Your task to perform on an android device: check data usage Image 0: 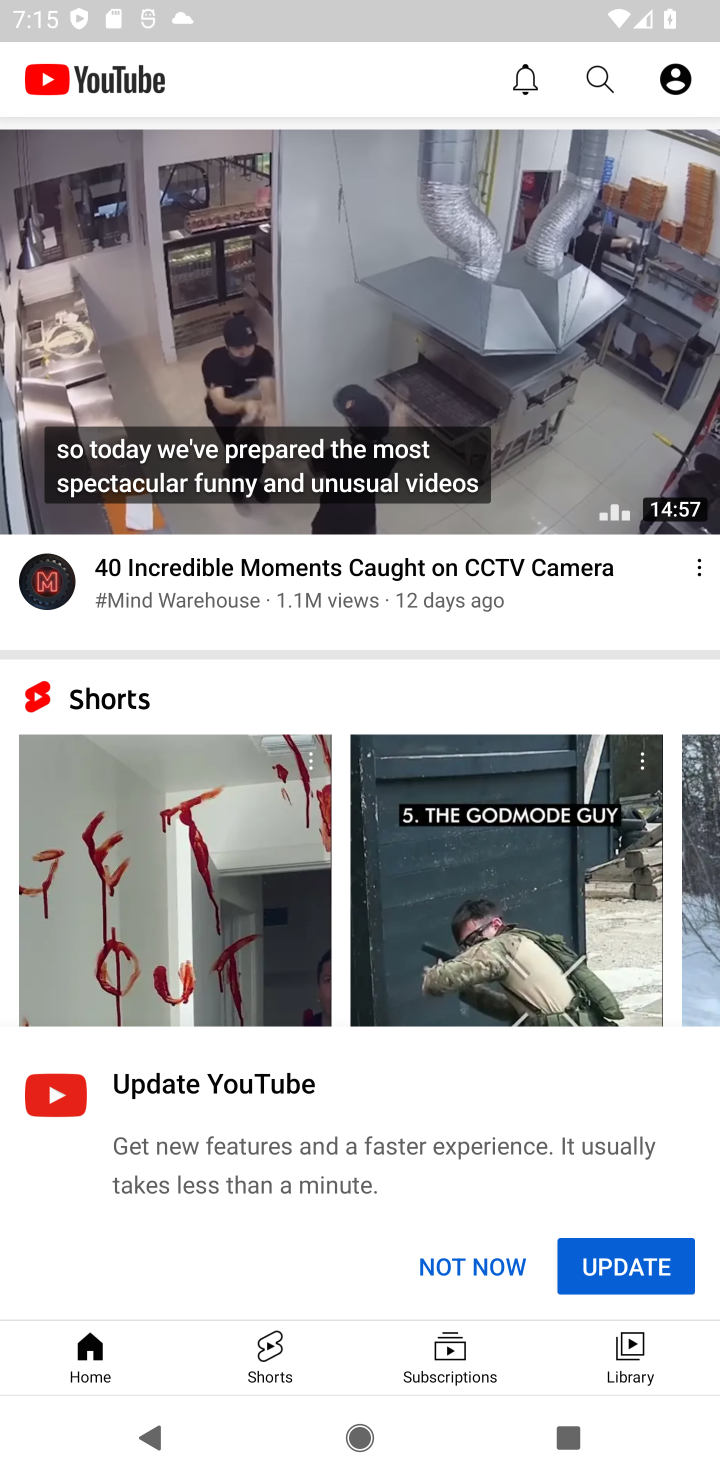
Step 0: press home button
Your task to perform on an android device: check data usage Image 1: 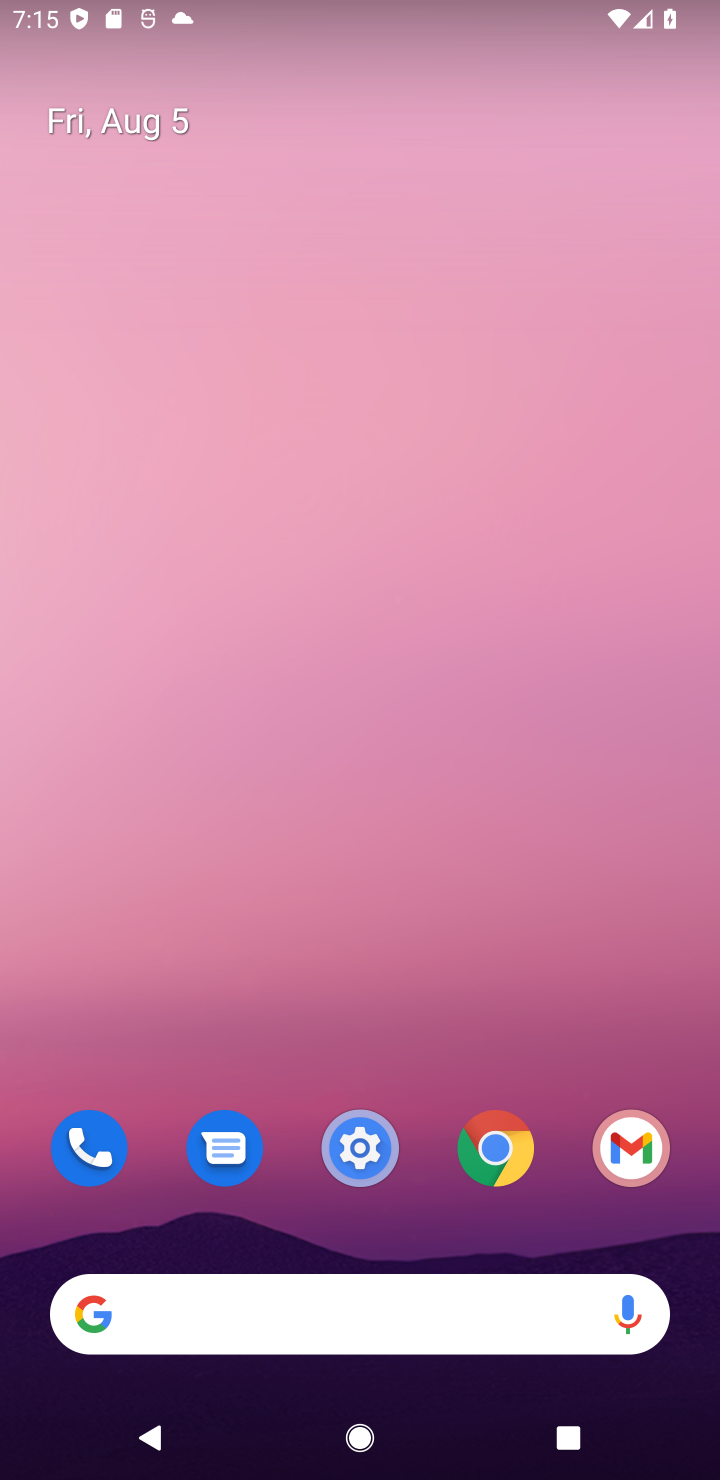
Step 1: click (385, 1170)
Your task to perform on an android device: check data usage Image 2: 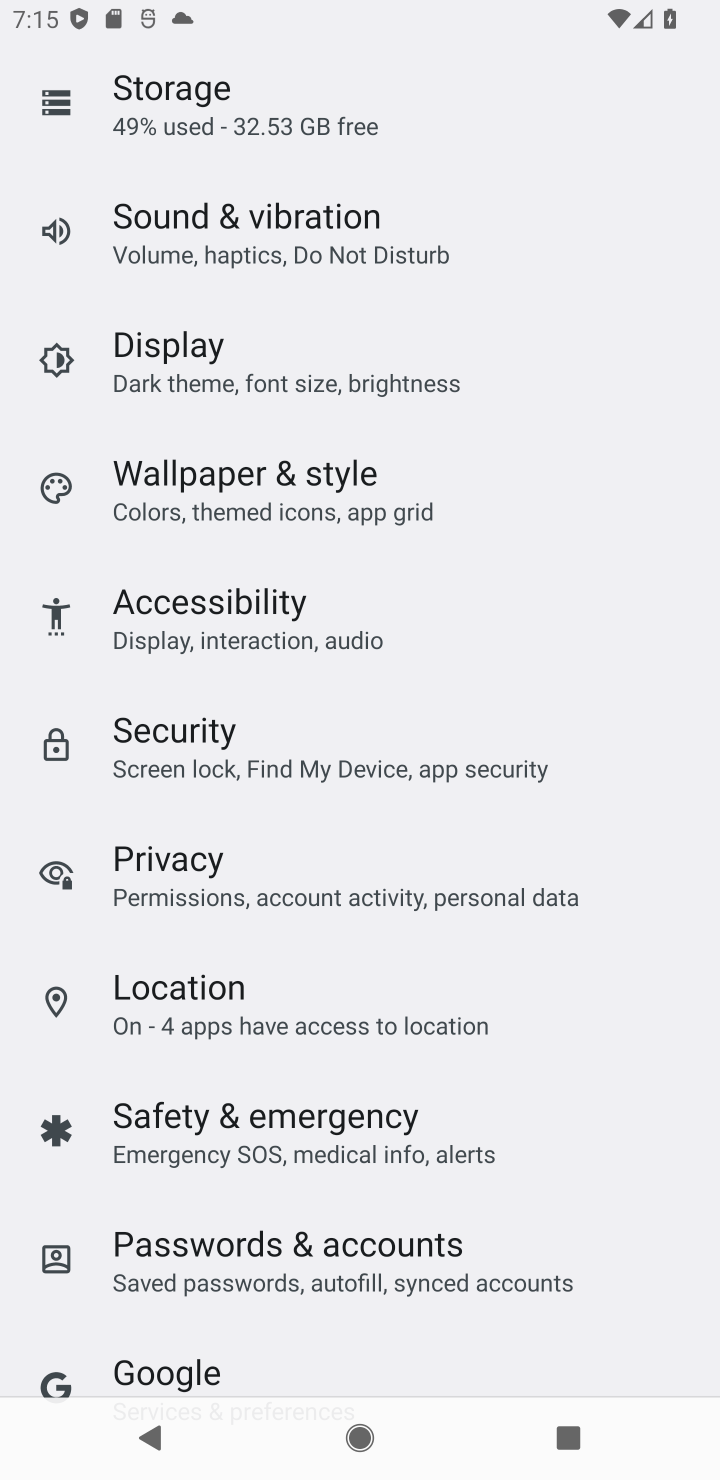
Step 2: drag from (289, 381) to (344, 1060)
Your task to perform on an android device: check data usage Image 3: 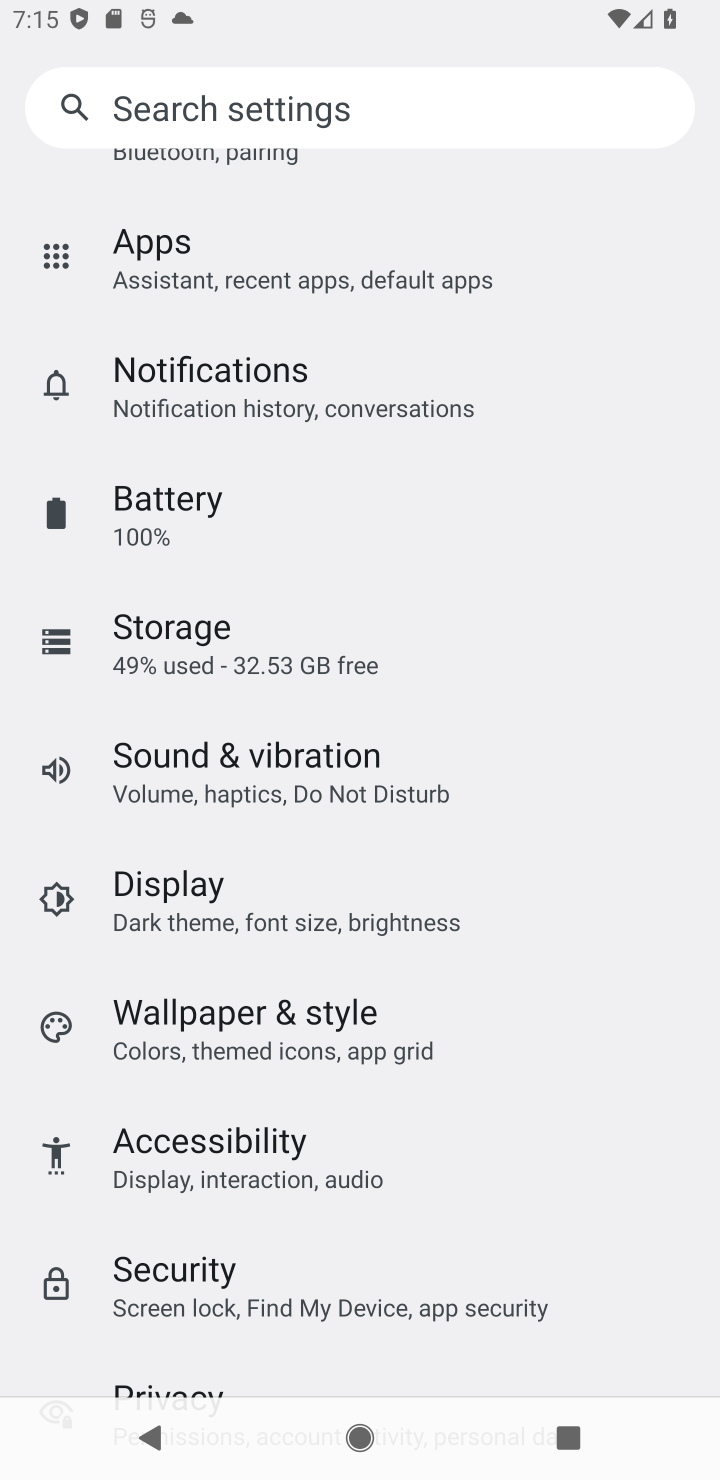
Step 3: drag from (326, 267) to (380, 1334)
Your task to perform on an android device: check data usage Image 4: 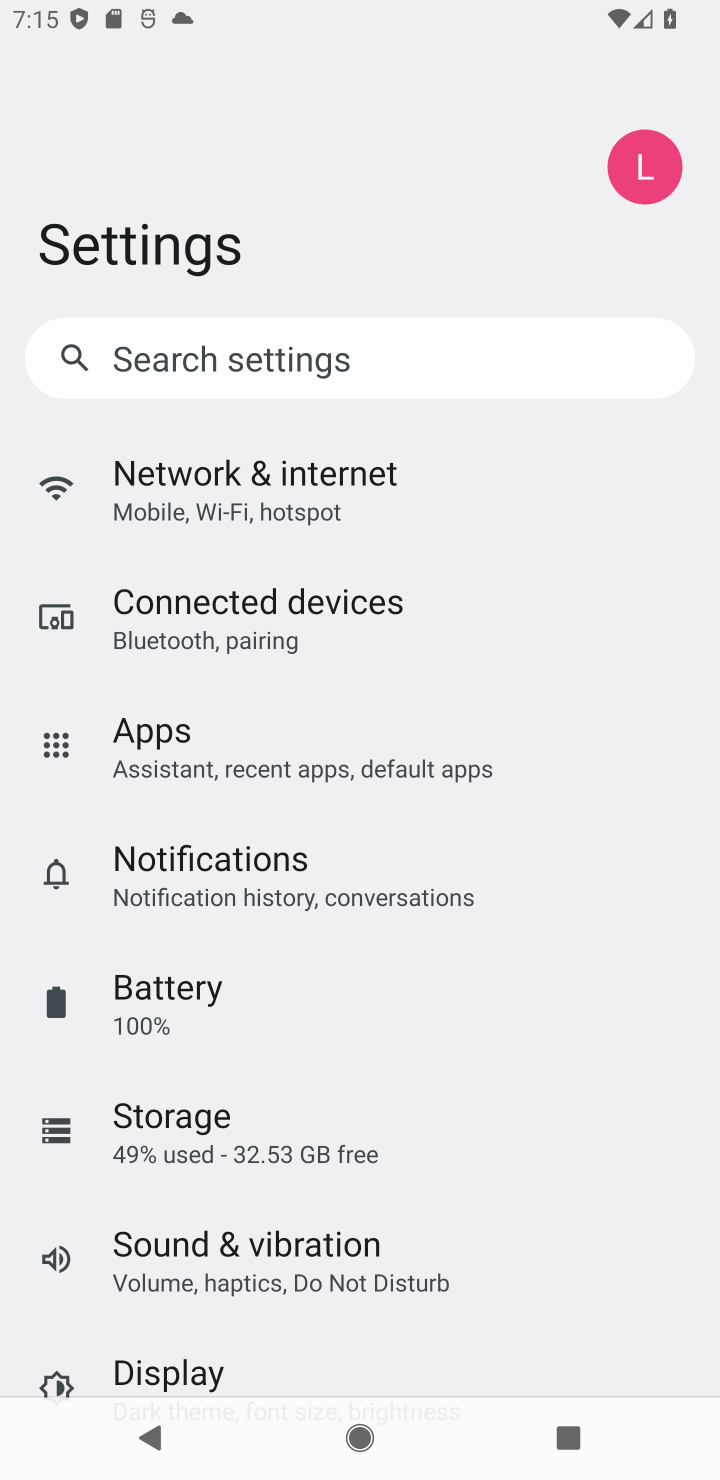
Step 4: click (395, 498)
Your task to perform on an android device: check data usage Image 5: 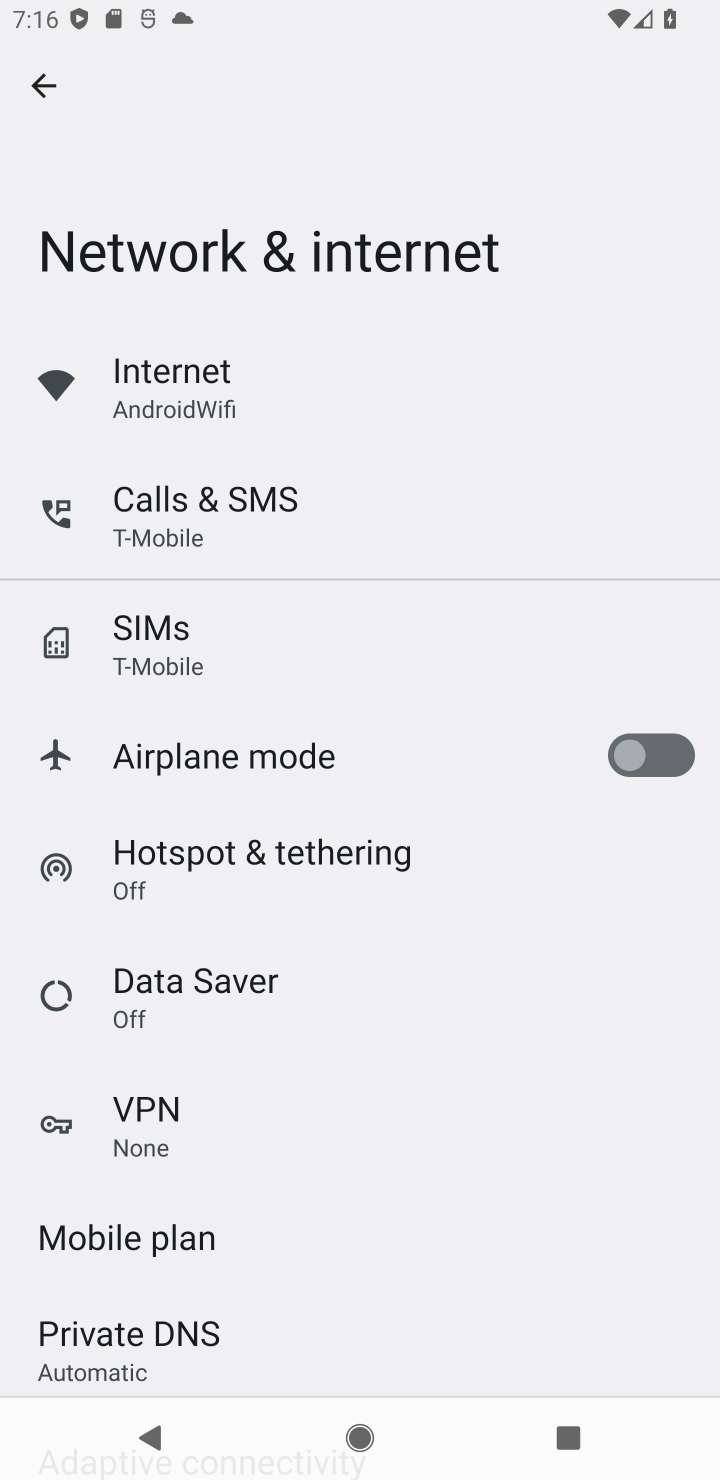
Step 5: click (205, 378)
Your task to perform on an android device: check data usage Image 6: 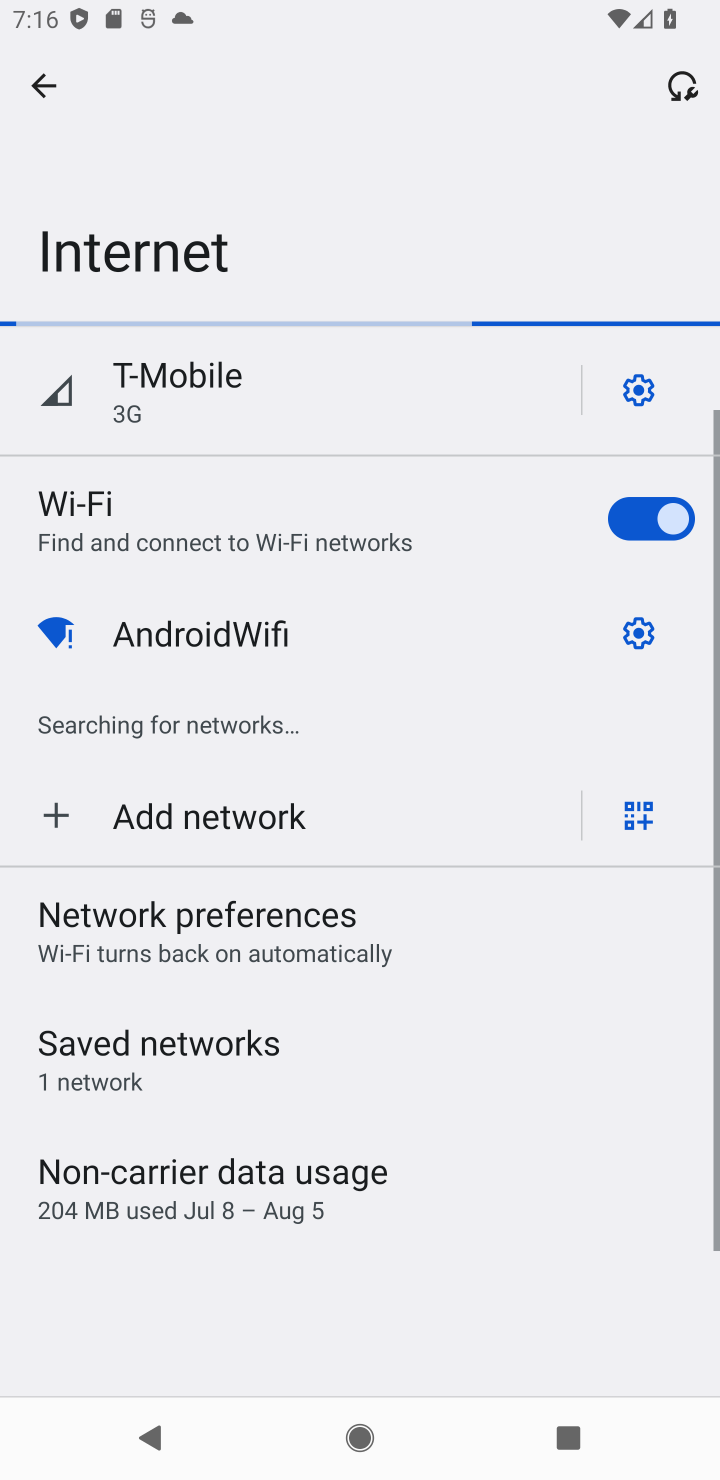
Step 6: task complete